Your task to perform on an android device: open app "Facebook Messenger" (install if not already installed) Image 0: 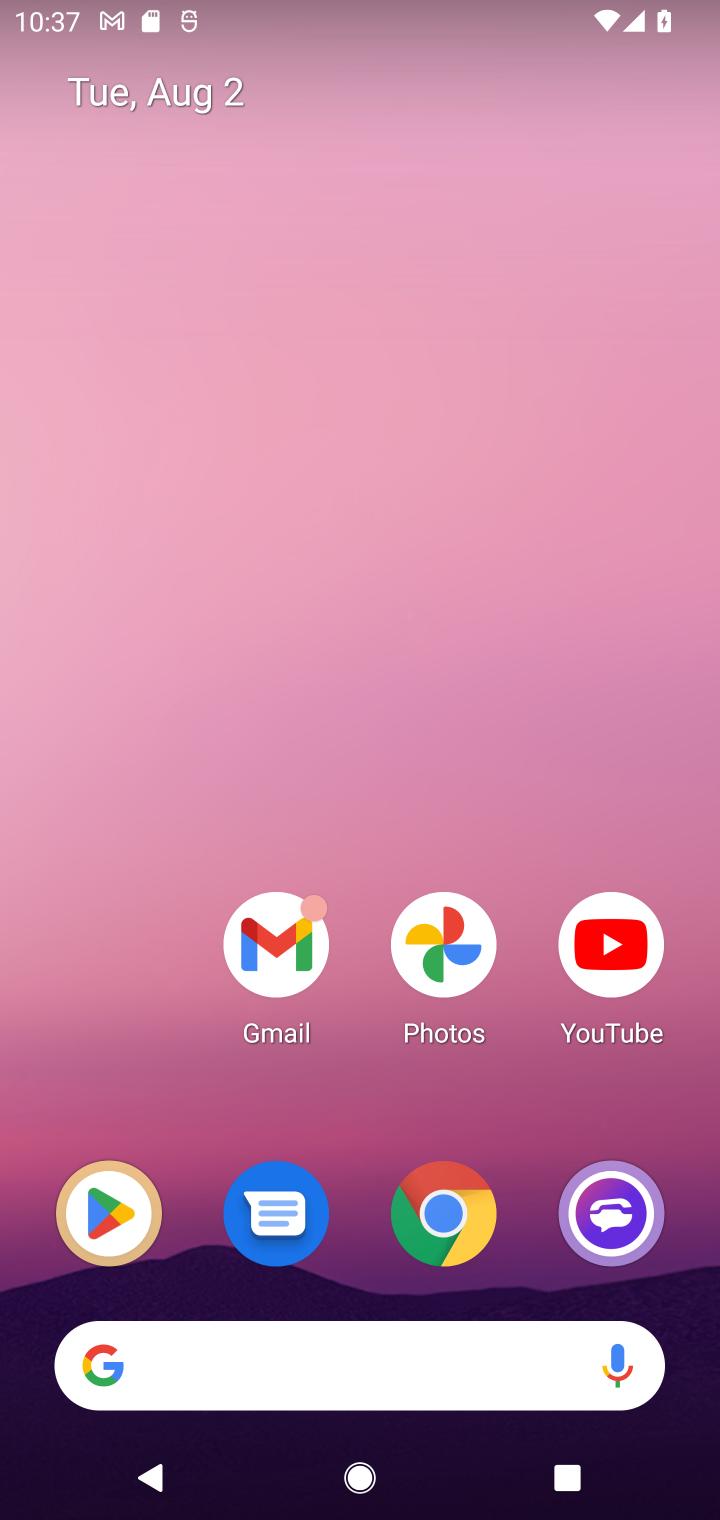
Step 0: click (89, 1243)
Your task to perform on an android device: open app "Facebook Messenger" (install if not already installed) Image 1: 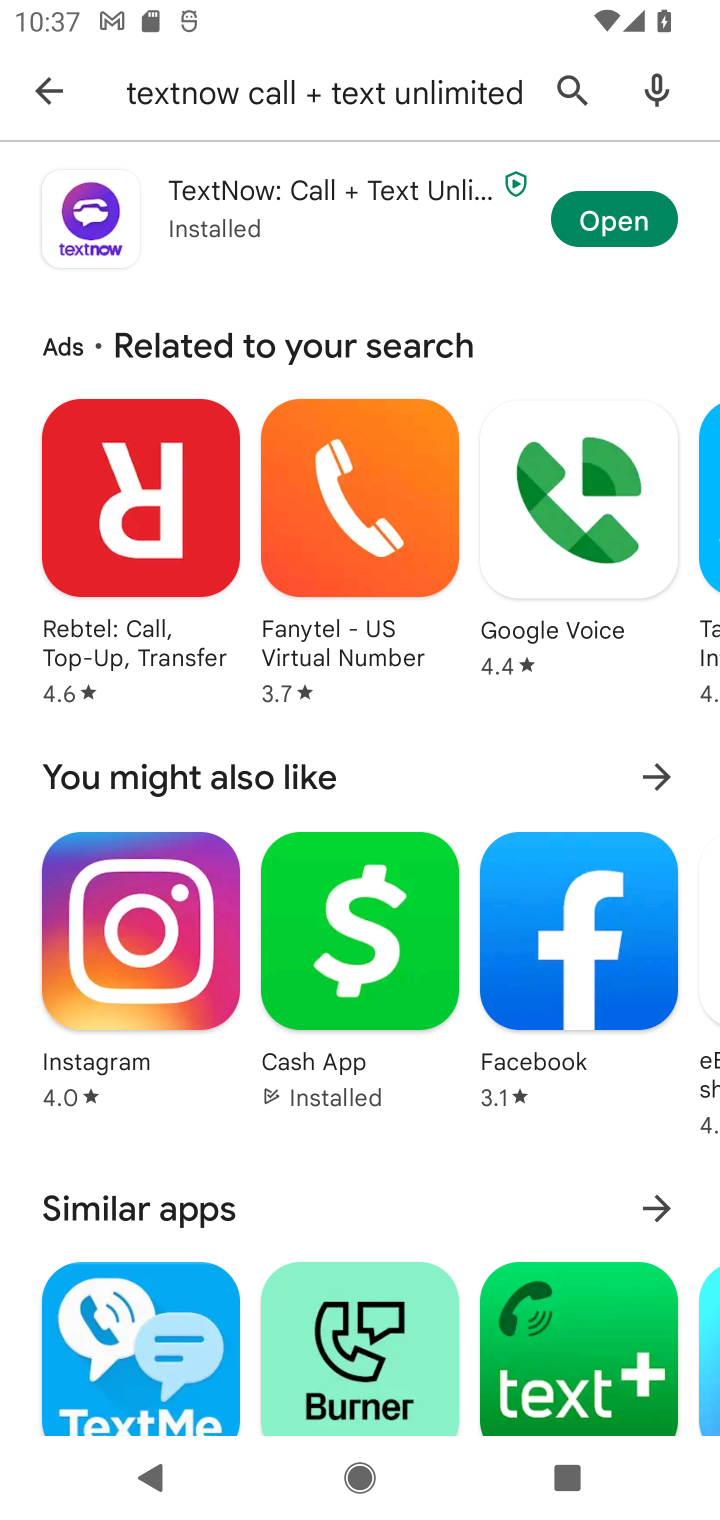
Step 1: click (60, 91)
Your task to perform on an android device: open app "Facebook Messenger" (install if not already installed) Image 2: 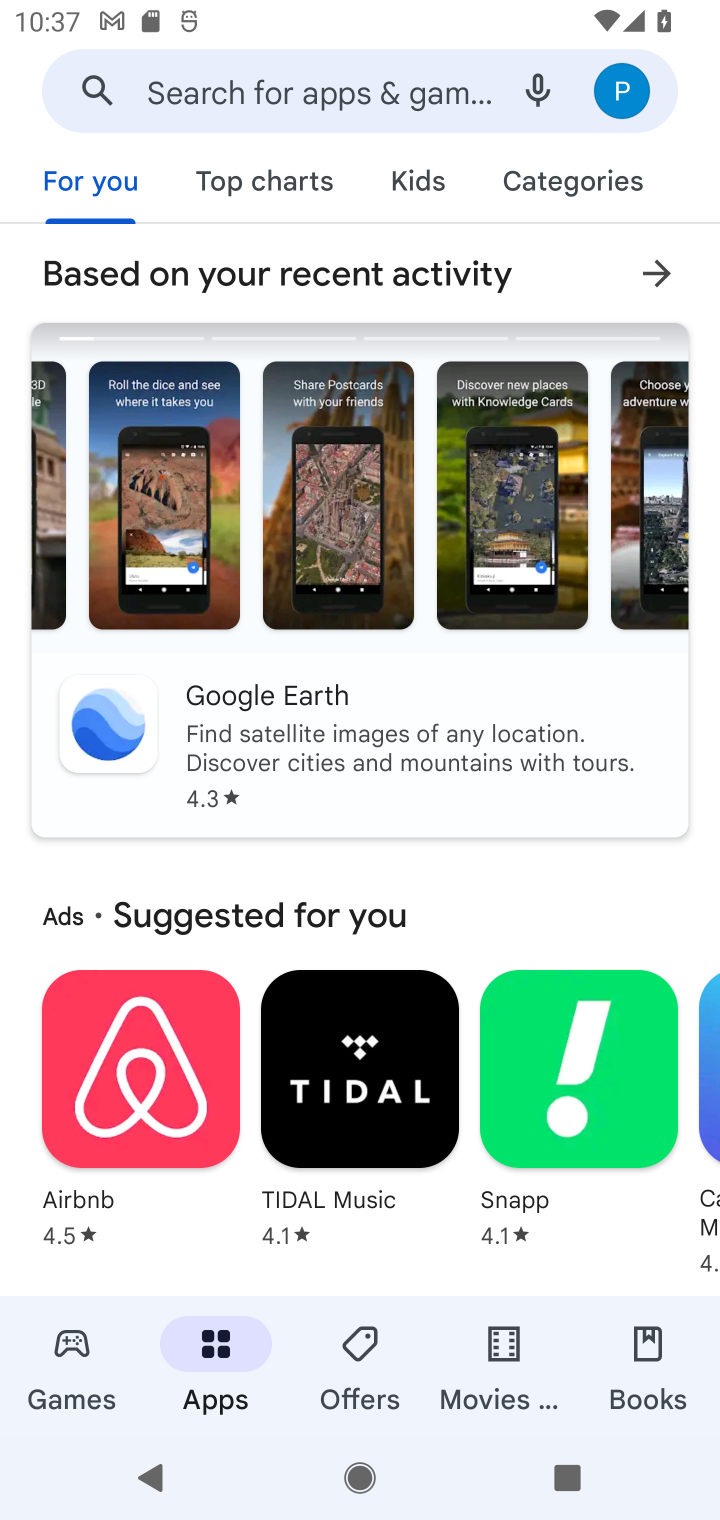
Step 2: click (365, 115)
Your task to perform on an android device: open app "Facebook Messenger" (install if not already installed) Image 3: 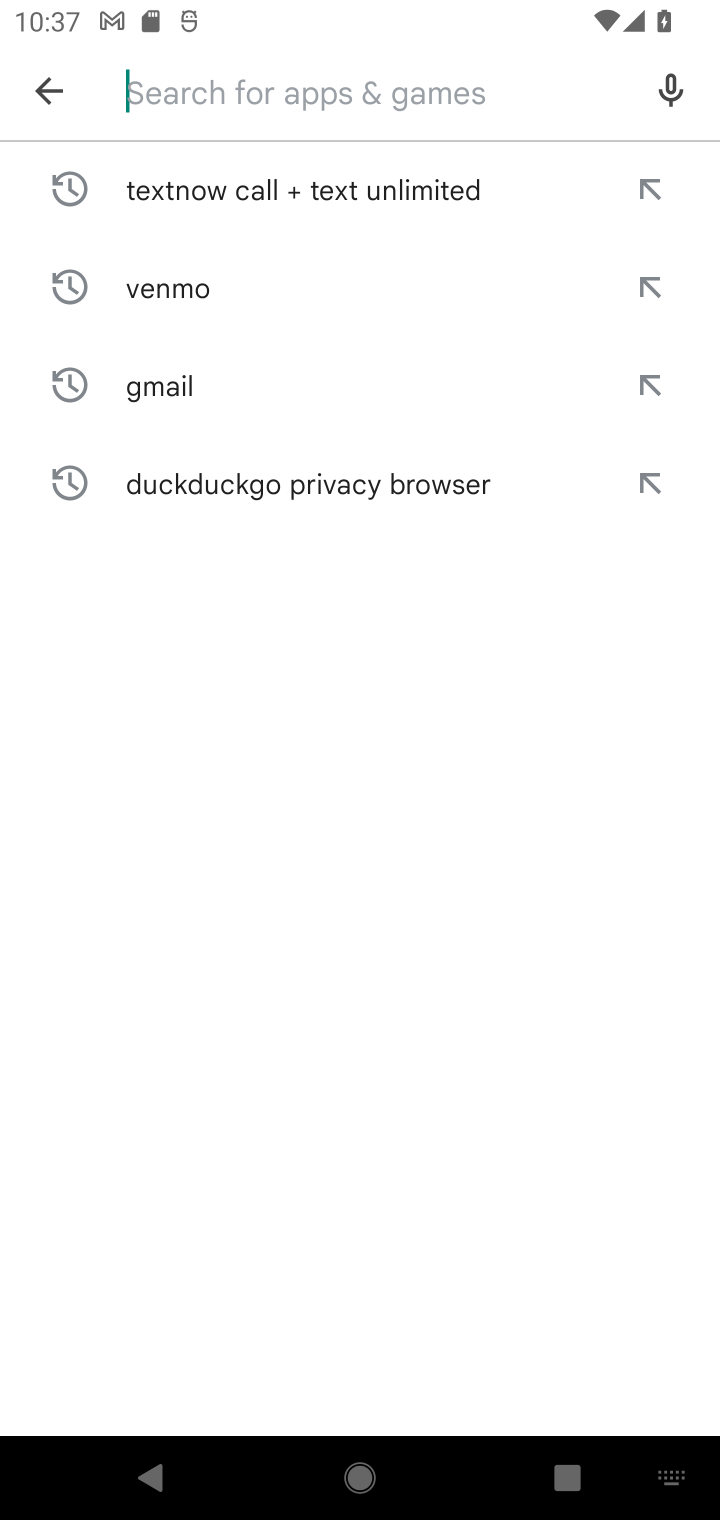
Step 3: type "Facebook Messenger"
Your task to perform on an android device: open app "Facebook Messenger" (install if not already installed) Image 4: 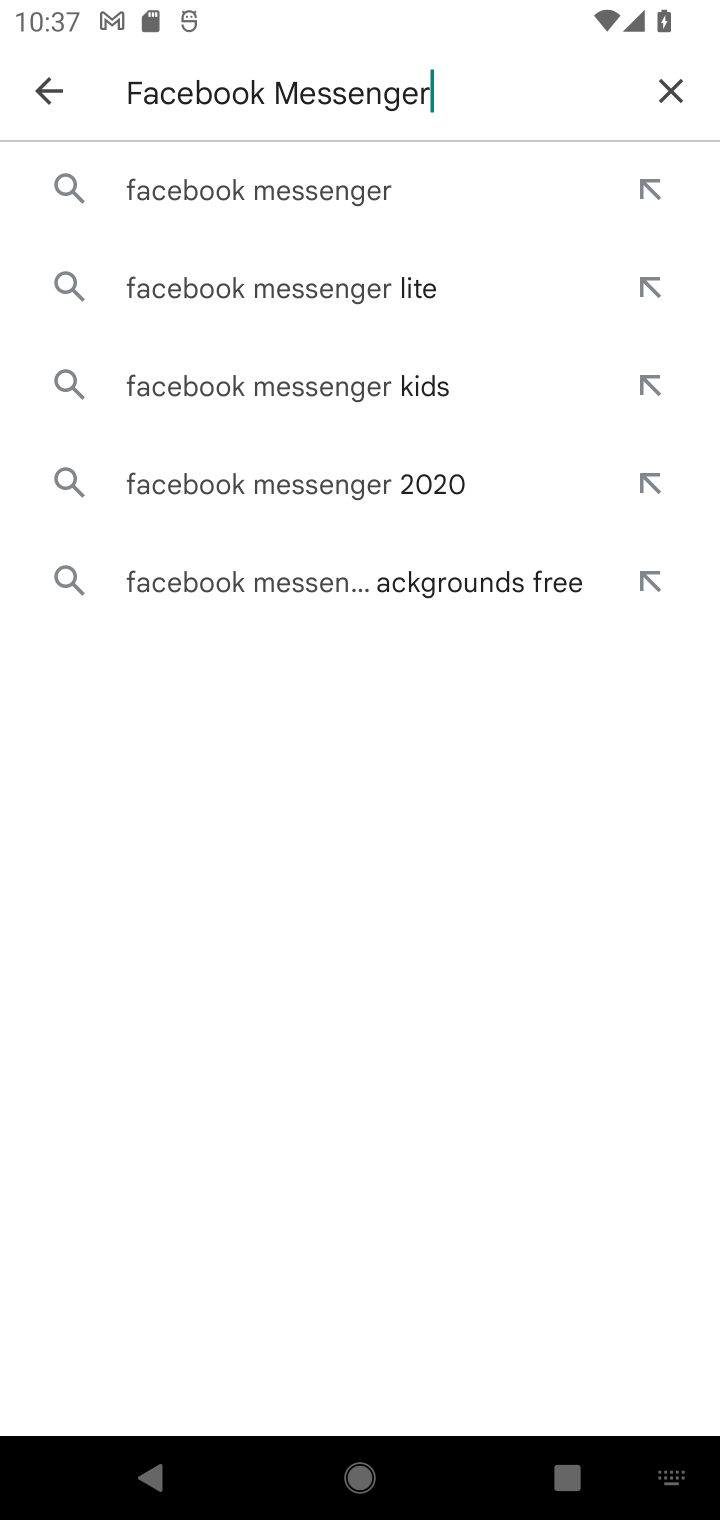
Step 4: click (177, 187)
Your task to perform on an android device: open app "Facebook Messenger" (install if not already installed) Image 5: 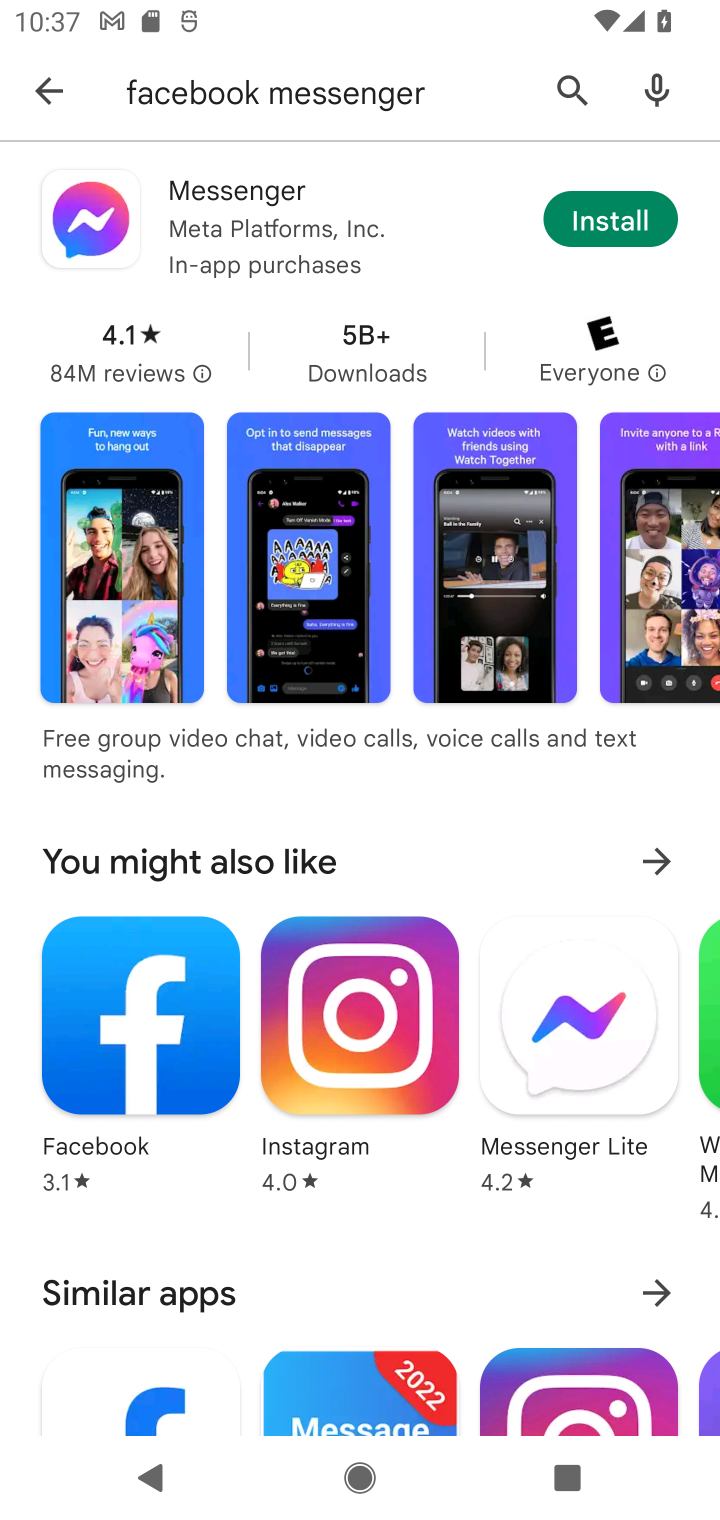
Step 5: click (605, 229)
Your task to perform on an android device: open app "Facebook Messenger" (install if not already installed) Image 6: 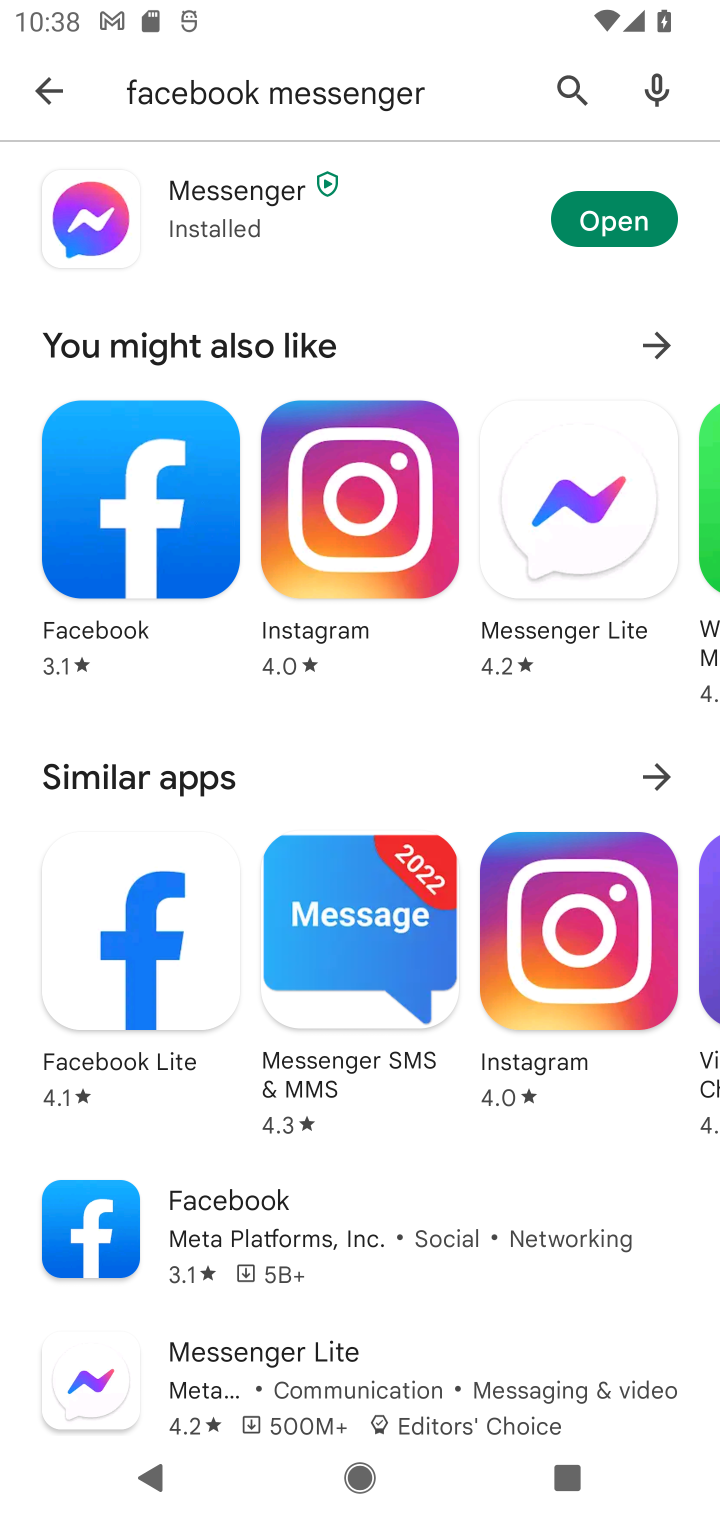
Step 6: click (600, 215)
Your task to perform on an android device: open app "Facebook Messenger" (install if not already installed) Image 7: 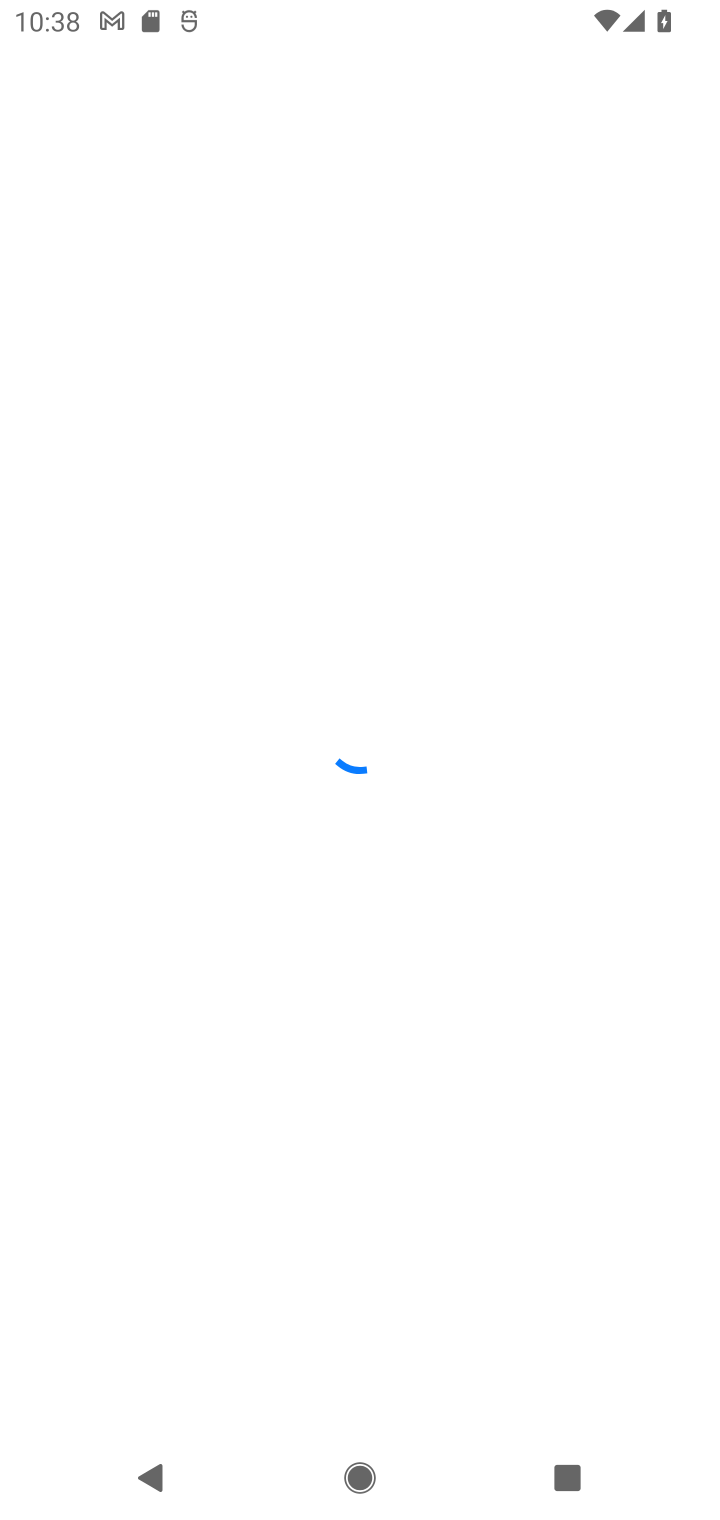
Step 7: task complete